Your task to perform on an android device: What is the recent news? Image 0: 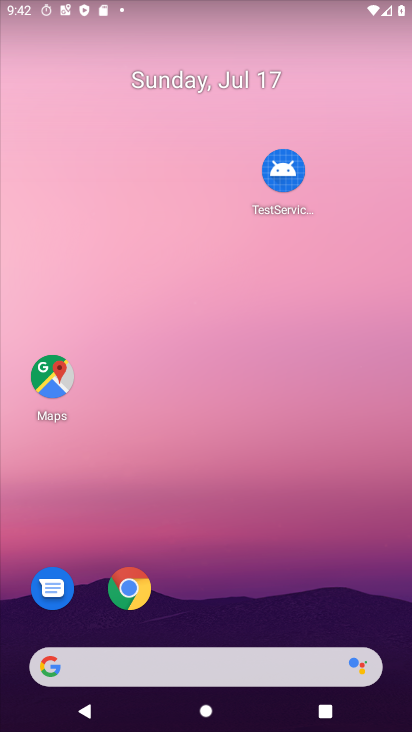
Step 0: drag from (215, 633) to (279, 10)
Your task to perform on an android device: What is the recent news? Image 1: 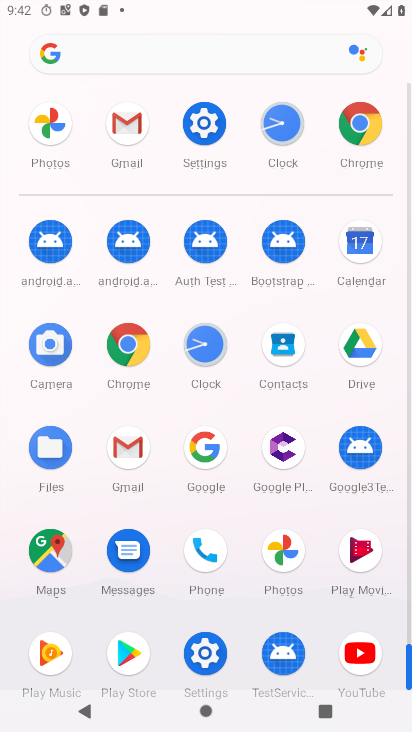
Step 1: click (211, 473)
Your task to perform on an android device: What is the recent news? Image 2: 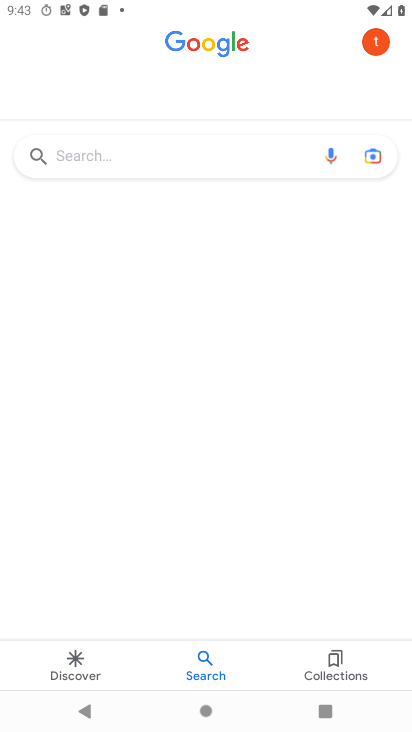
Step 2: click (135, 158)
Your task to perform on an android device: What is the recent news? Image 3: 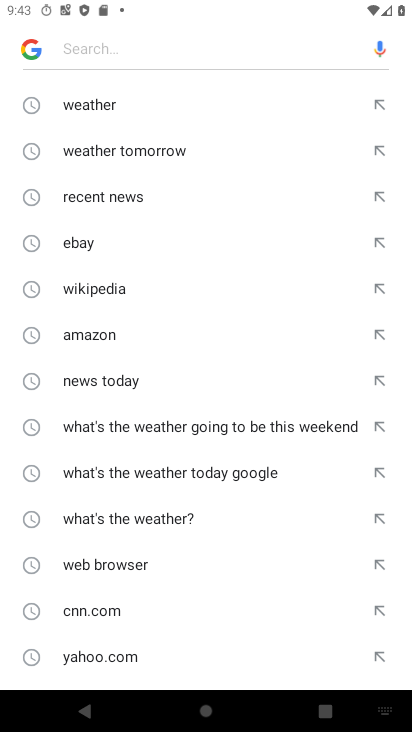
Step 3: click (144, 198)
Your task to perform on an android device: What is the recent news? Image 4: 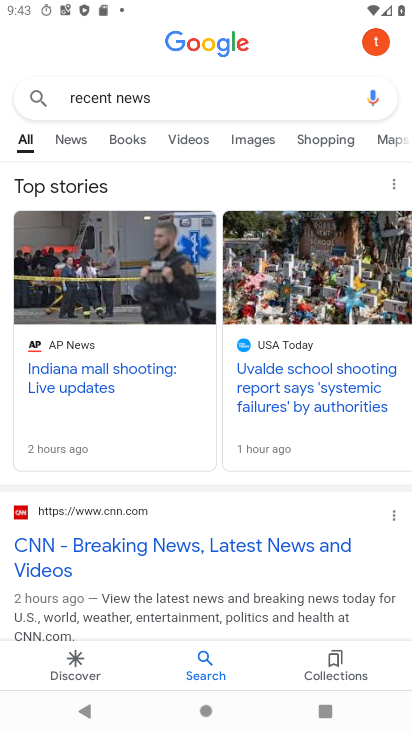
Step 4: click (60, 137)
Your task to perform on an android device: What is the recent news? Image 5: 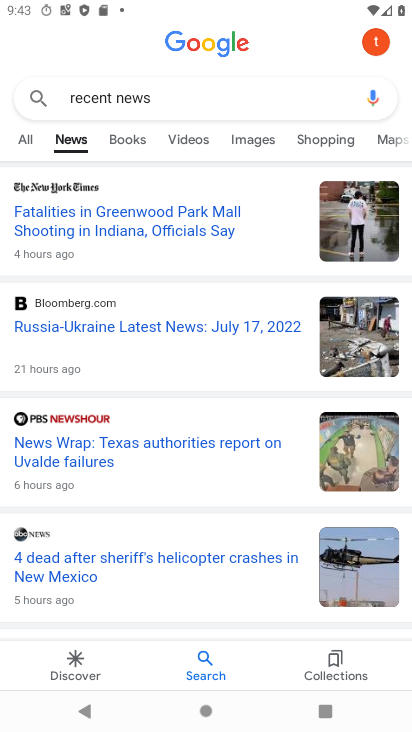
Step 5: task complete